Your task to perform on an android device: turn off data saver in the chrome app Image 0: 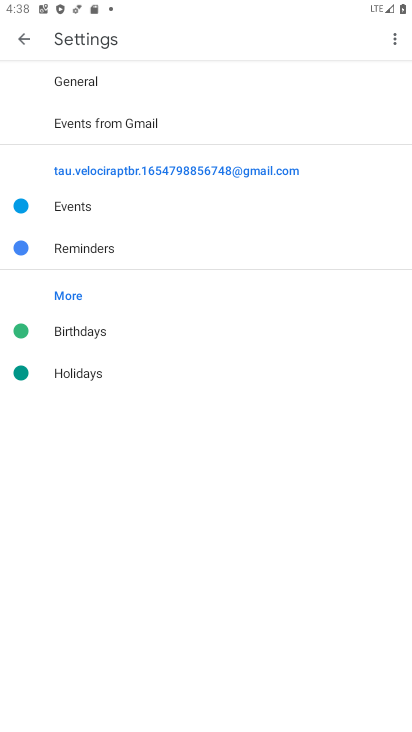
Step 0: press home button
Your task to perform on an android device: turn off data saver in the chrome app Image 1: 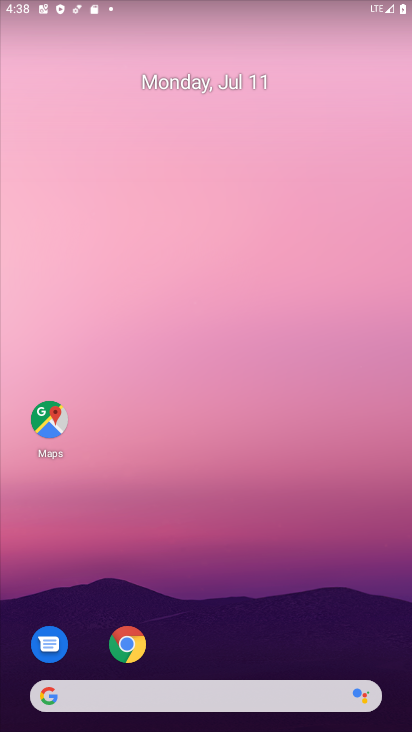
Step 1: drag from (285, 621) to (268, 287)
Your task to perform on an android device: turn off data saver in the chrome app Image 2: 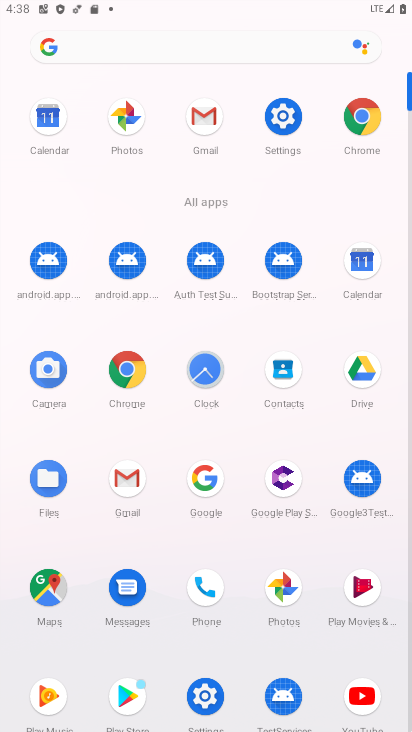
Step 2: click (365, 125)
Your task to perform on an android device: turn off data saver in the chrome app Image 3: 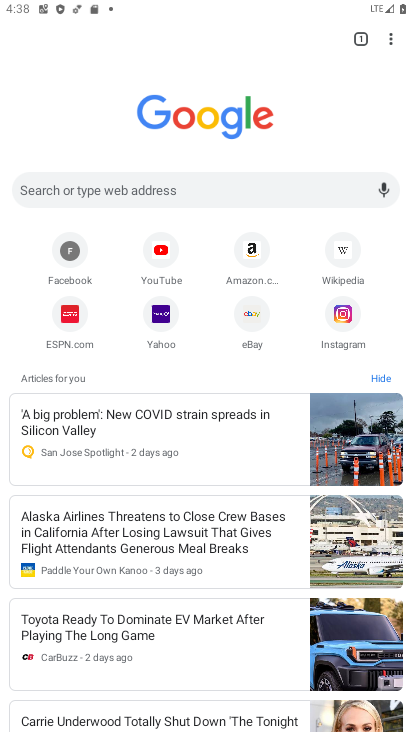
Step 3: click (385, 39)
Your task to perform on an android device: turn off data saver in the chrome app Image 4: 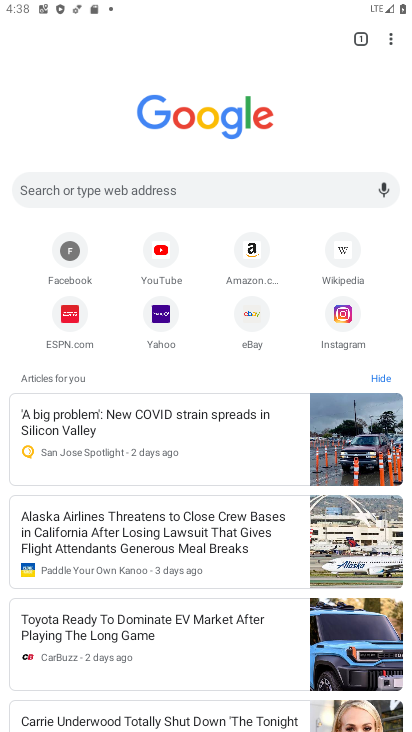
Step 4: click (391, 40)
Your task to perform on an android device: turn off data saver in the chrome app Image 5: 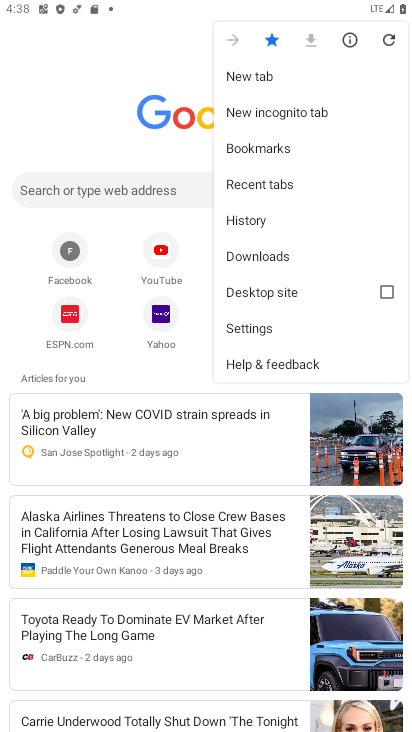
Step 5: click (267, 332)
Your task to perform on an android device: turn off data saver in the chrome app Image 6: 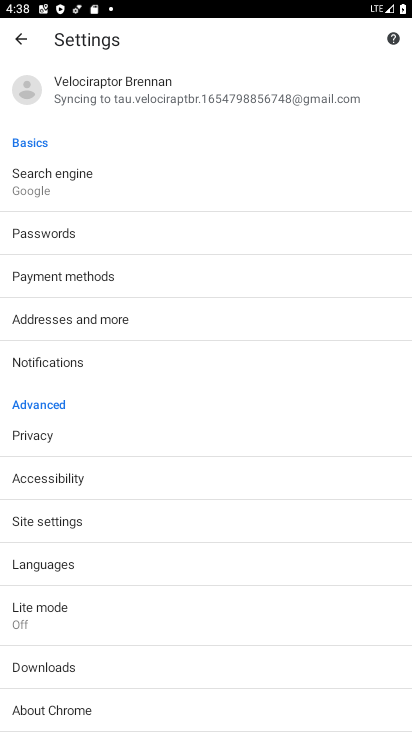
Step 6: click (207, 613)
Your task to perform on an android device: turn off data saver in the chrome app Image 7: 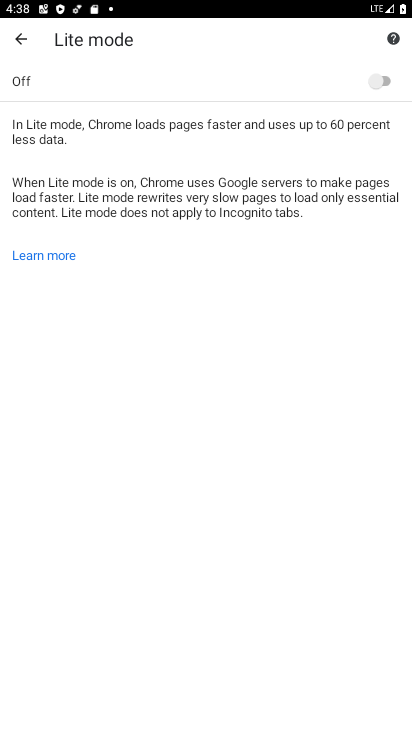
Step 7: task complete